Your task to perform on an android device: open app "Etsy: Buy & Sell Unique Items" (install if not already installed) Image 0: 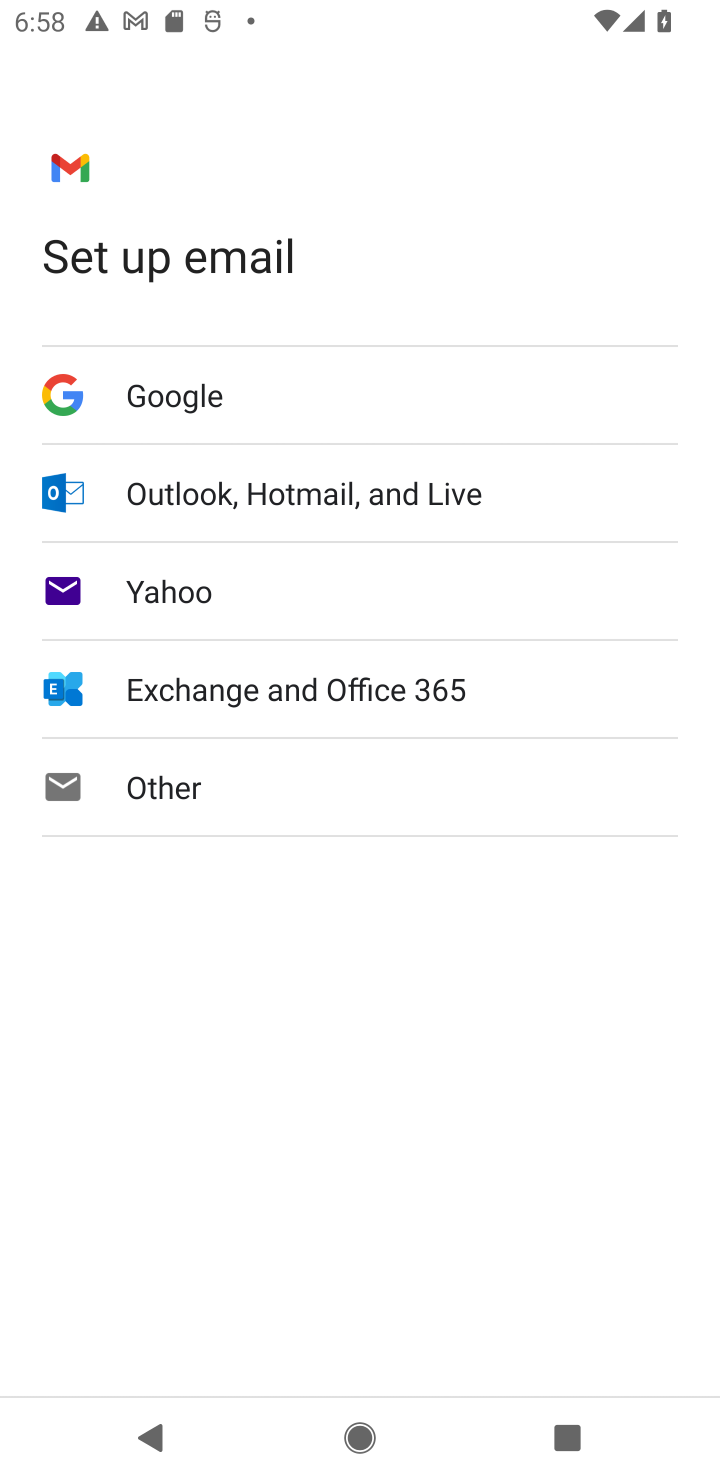
Step 0: press home button
Your task to perform on an android device: open app "Etsy: Buy & Sell Unique Items" (install if not already installed) Image 1: 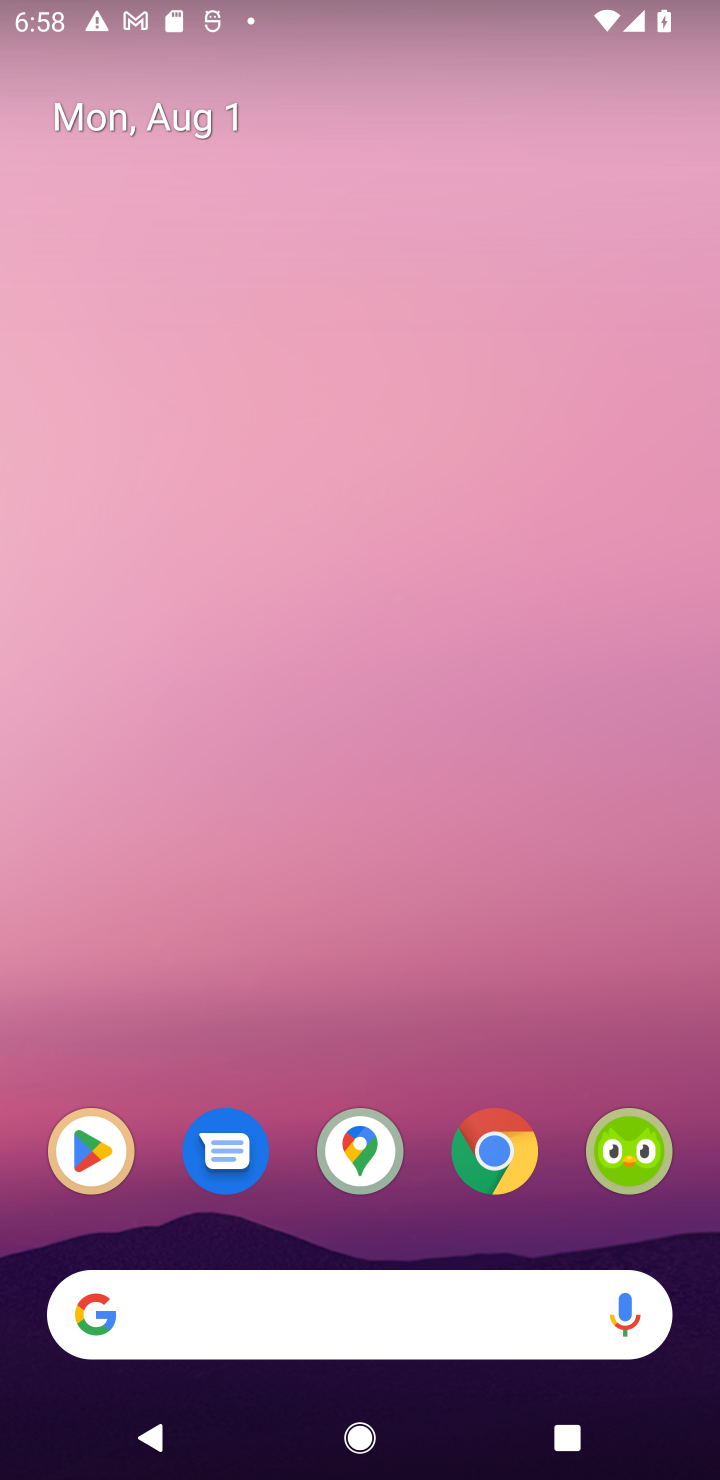
Step 1: drag from (401, 1292) to (262, 58)
Your task to perform on an android device: open app "Etsy: Buy & Sell Unique Items" (install if not already installed) Image 2: 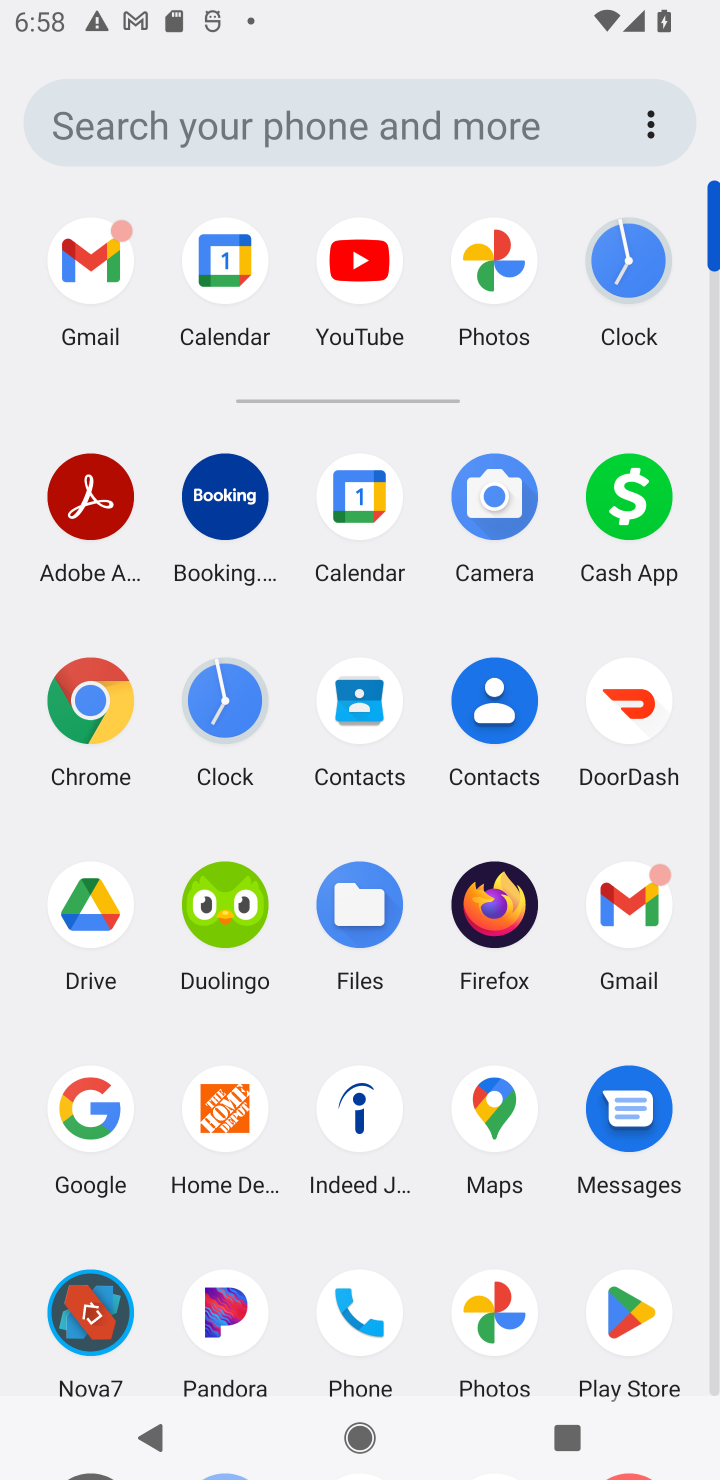
Step 2: click (627, 1300)
Your task to perform on an android device: open app "Etsy: Buy & Sell Unique Items" (install if not already installed) Image 3: 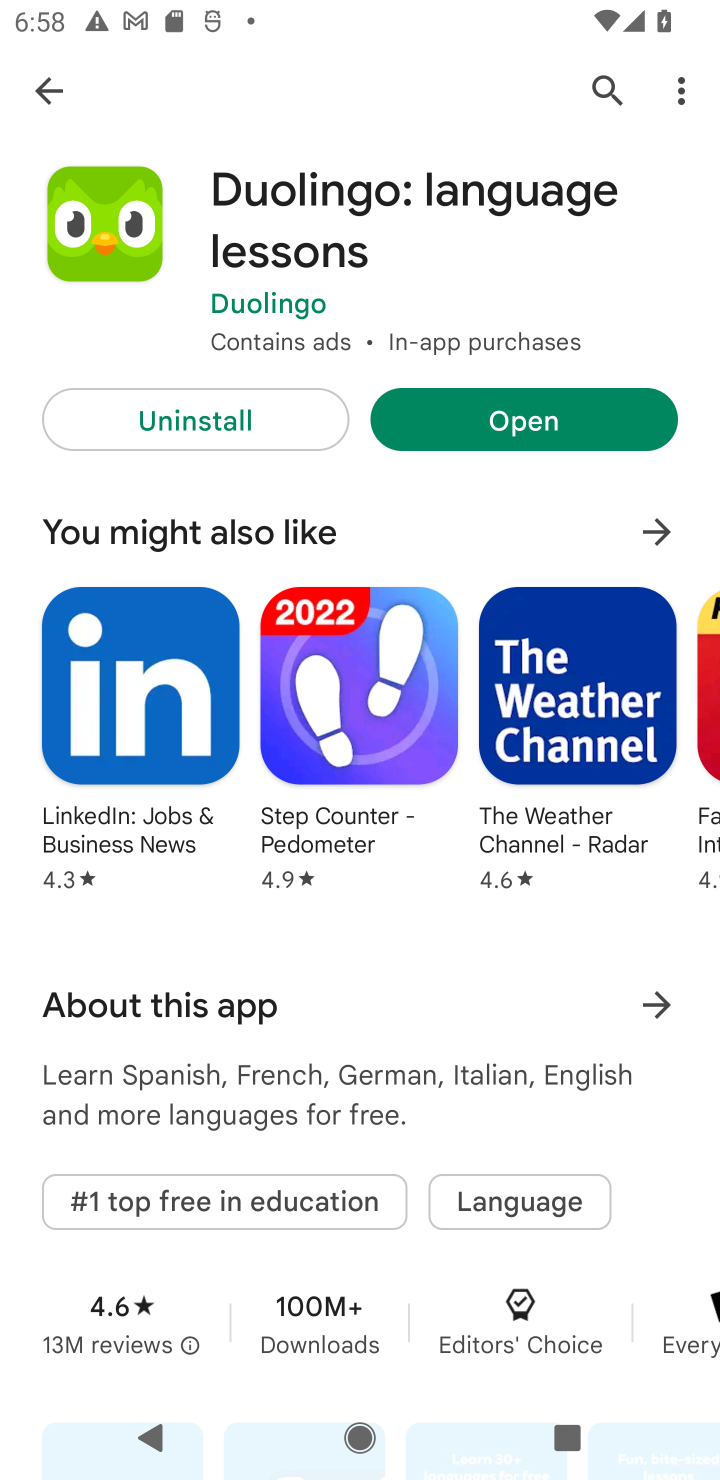
Step 3: click (608, 82)
Your task to perform on an android device: open app "Etsy: Buy & Sell Unique Items" (install if not already installed) Image 4: 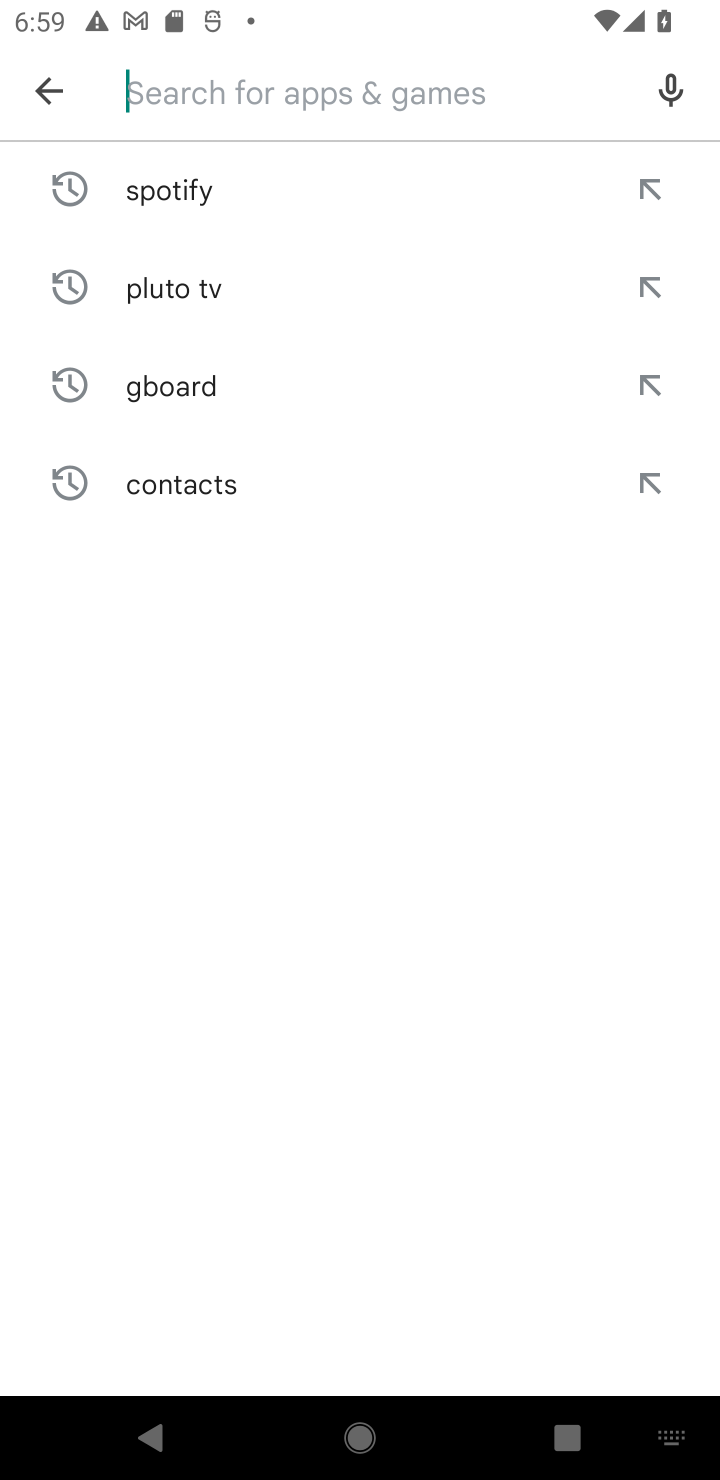
Step 4: type "etsy: buy & sell unique items"
Your task to perform on an android device: open app "Etsy: Buy & Sell Unique Items" (install if not already installed) Image 5: 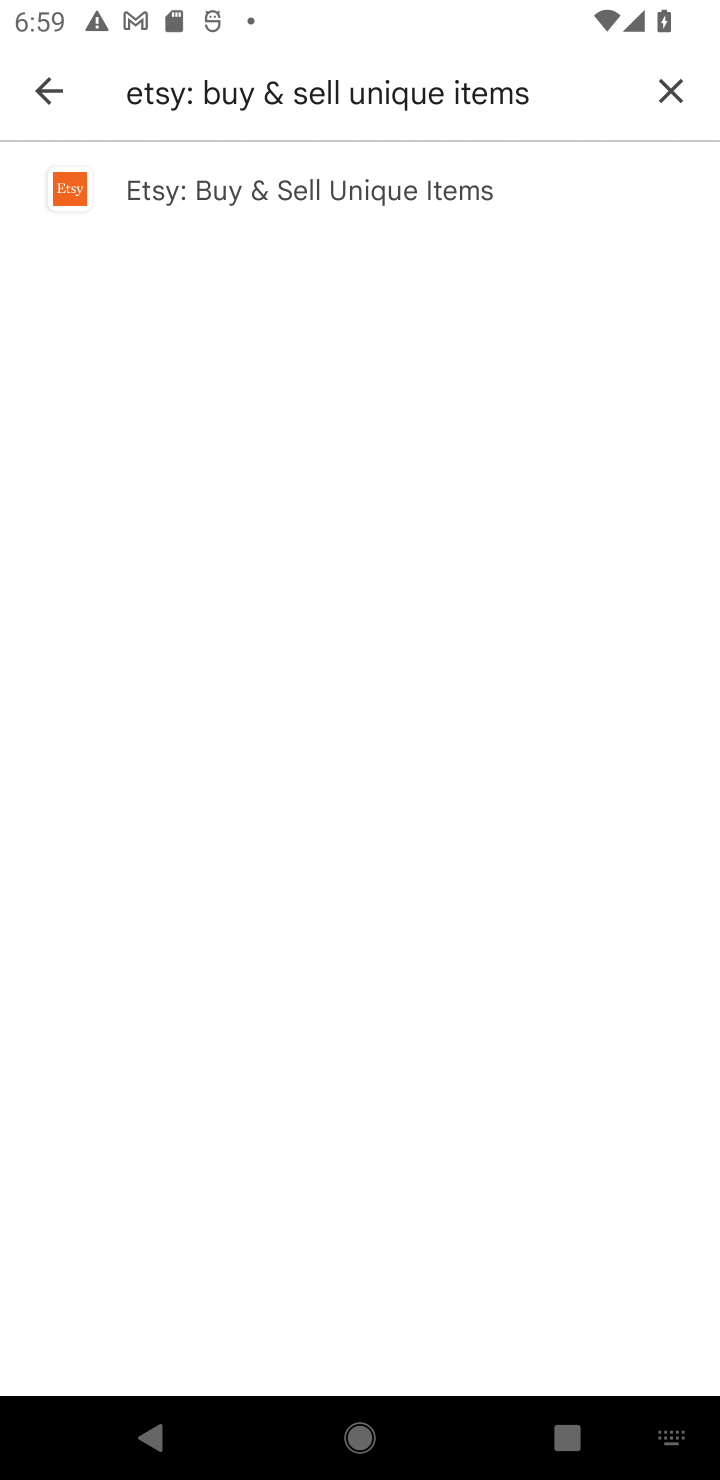
Step 5: click (244, 197)
Your task to perform on an android device: open app "Etsy: Buy & Sell Unique Items" (install if not already installed) Image 6: 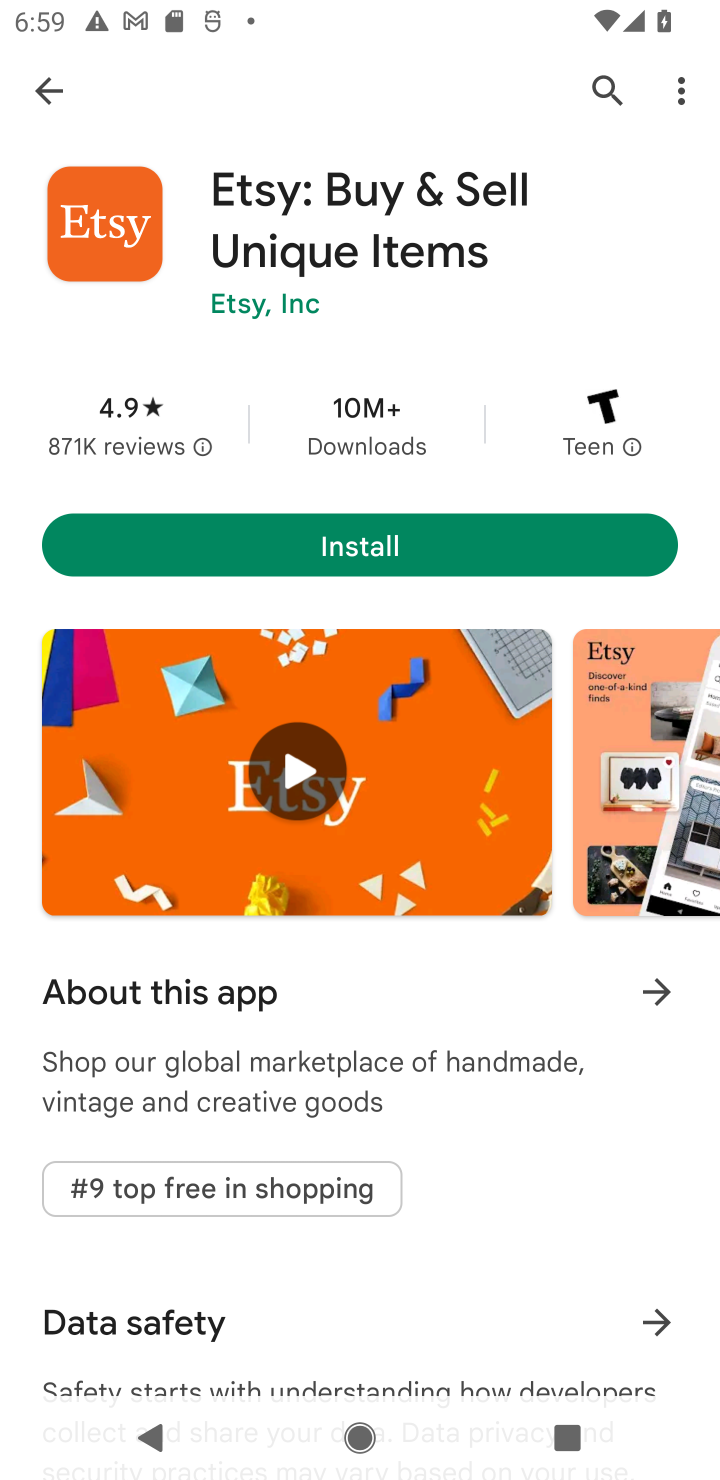
Step 6: click (524, 522)
Your task to perform on an android device: open app "Etsy: Buy & Sell Unique Items" (install if not already installed) Image 7: 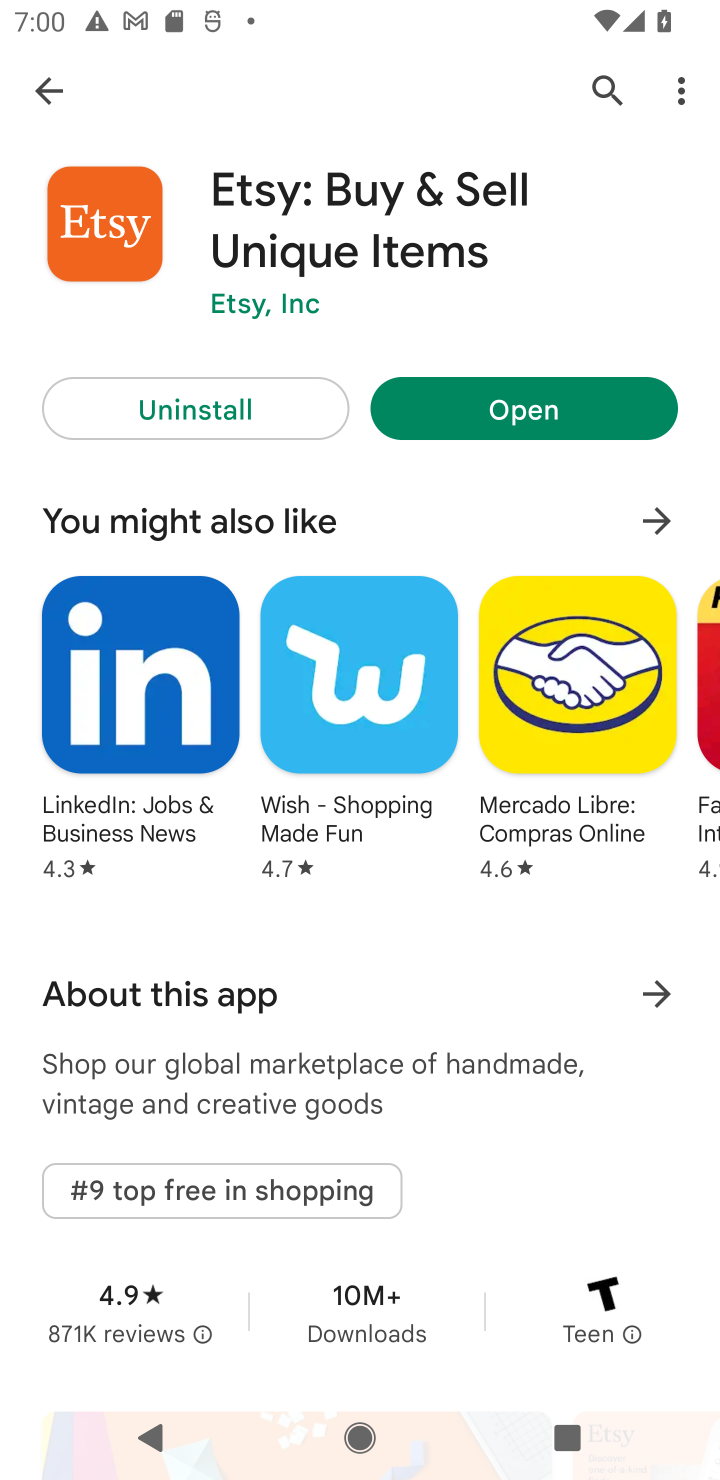
Step 7: task complete